Your task to perform on an android device: turn off location Image 0: 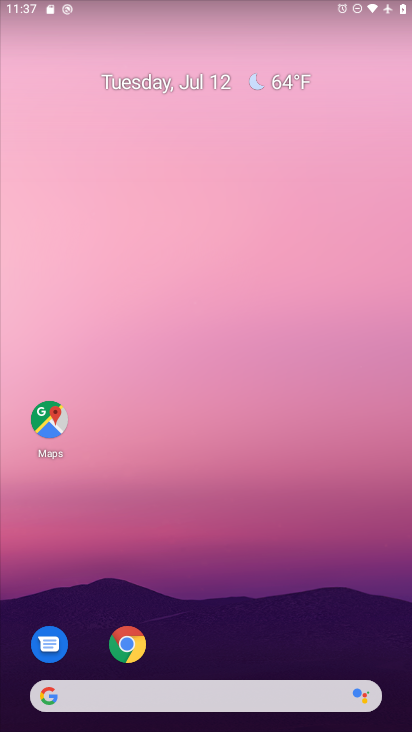
Step 0: drag from (317, 645) to (265, 210)
Your task to perform on an android device: turn off location Image 1: 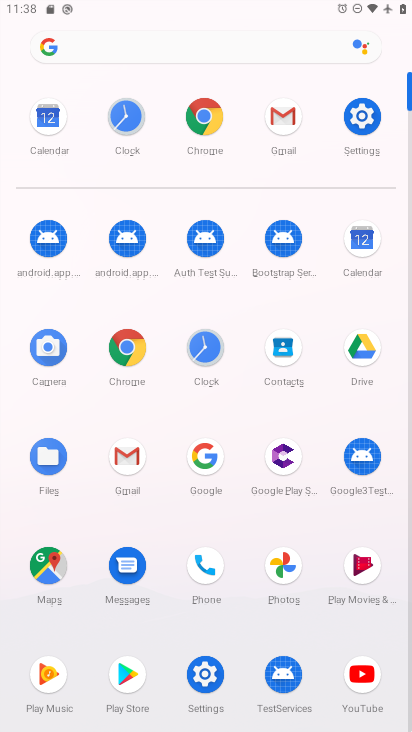
Step 1: click (343, 146)
Your task to perform on an android device: turn off location Image 2: 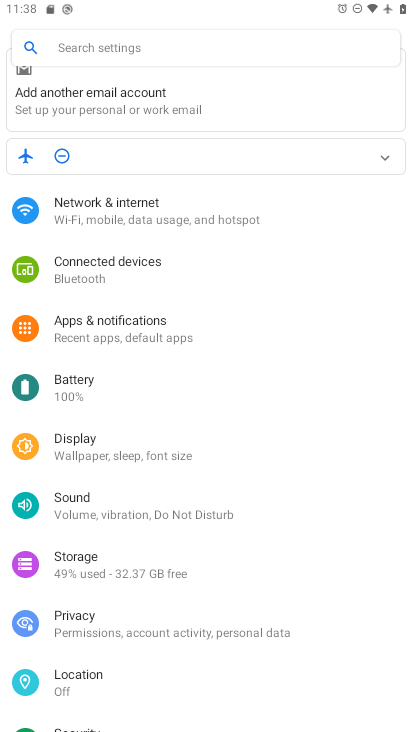
Step 2: click (129, 672)
Your task to perform on an android device: turn off location Image 3: 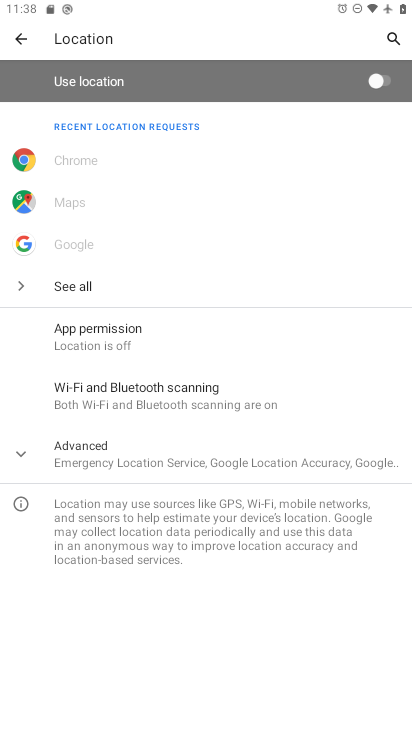
Step 3: task complete